Your task to perform on an android device: Open calendar and show me the fourth week of next month Image 0: 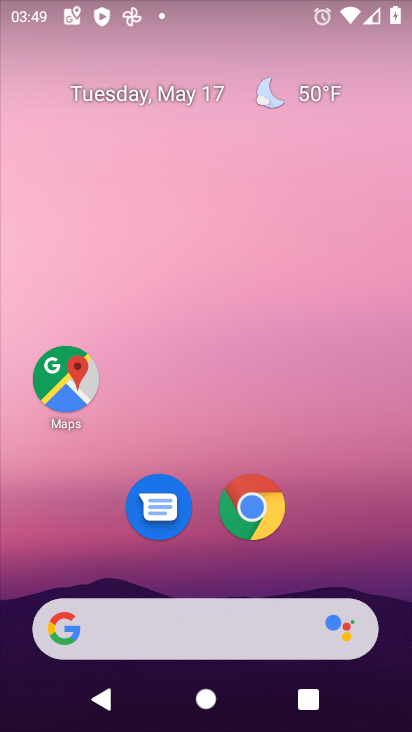
Step 0: drag from (344, 539) to (220, 24)
Your task to perform on an android device: Open calendar and show me the fourth week of next month Image 1: 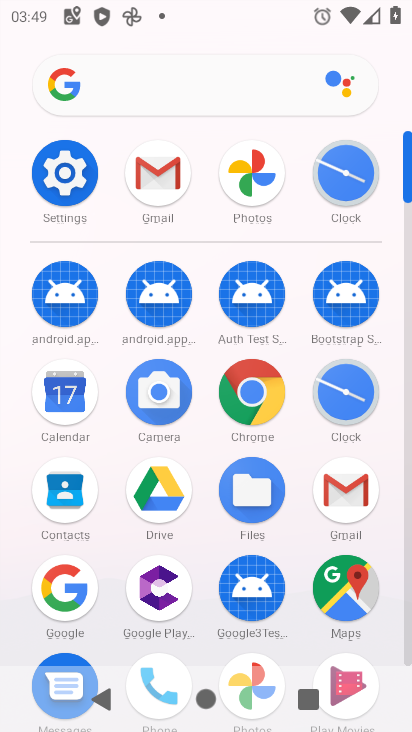
Step 1: click (77, 400)
Your task to perform on an android device: Open calendar and show me the fourth week of next month Image 2: 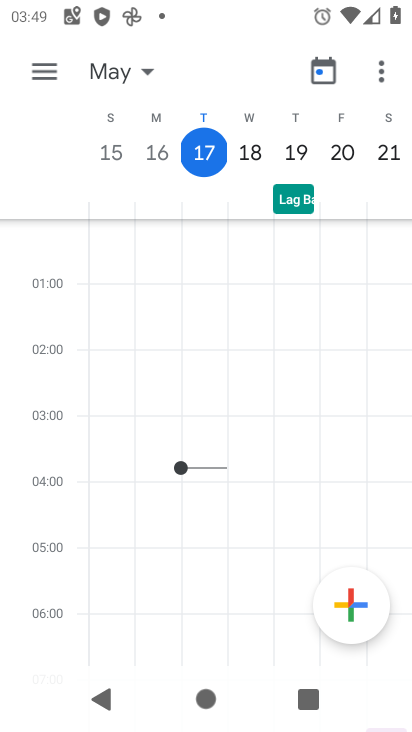
Step 2: click (138, 62)
Your task to perform on an android device: Open calendar and show me the fourth week of next month Image 3: 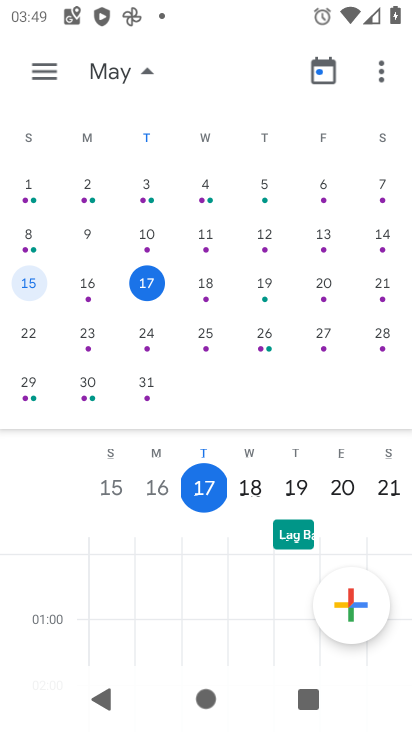
Step 3: drag from (354, 264) to (21, 400)
Your task to perform on an android device: Open calendar and show me the fourth week of next month Image 4: 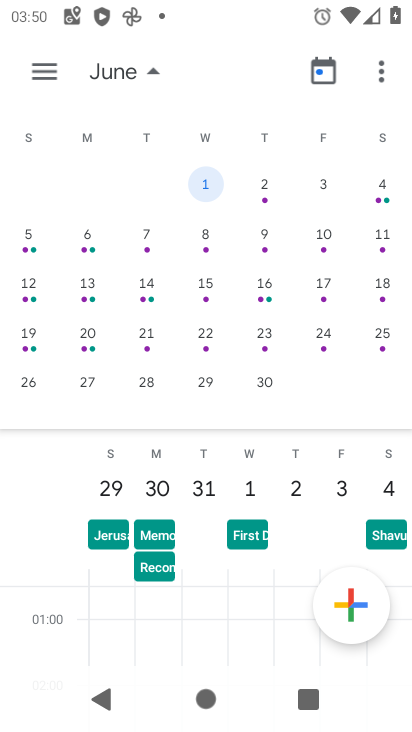
Step 4: click (39, 329)
Your task to perform on an android device: Open calendar and show me the fourth week of next month Image 5: 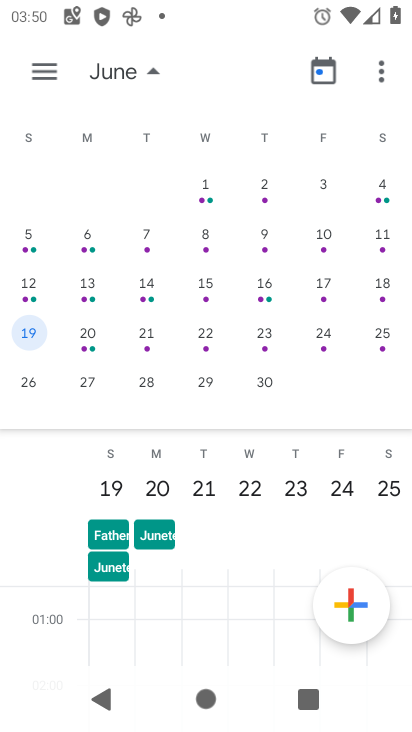
Step 5: task complete